Your task to perform on an android device: Open eBay Image 0: 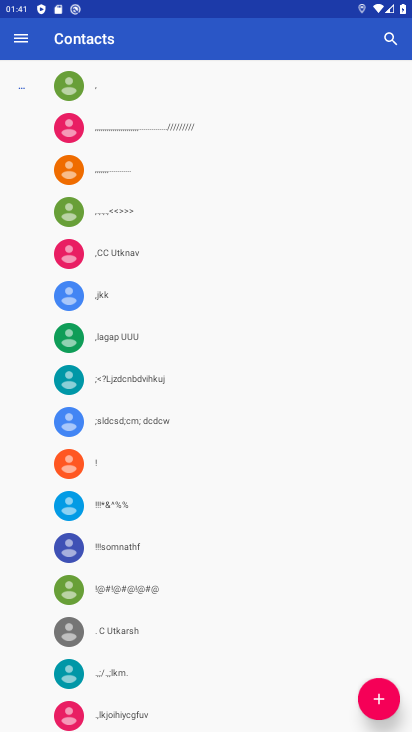
Step 0: press home button
Your task to perform on an android device: Open eBay Image 1: 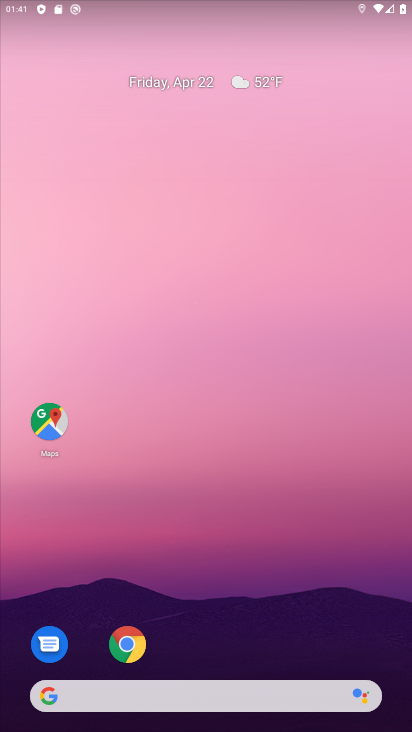
Step 1: click (128, 634)
Your task to perform on an android device: Open eBay Image 2: 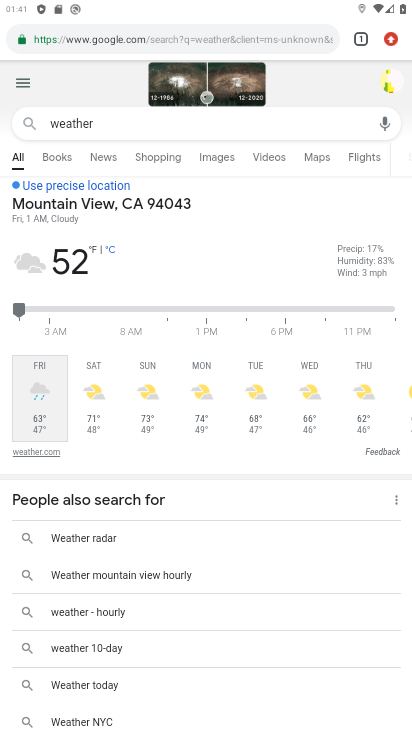
Step 2: click (159, 133)
Your task to perform on an android device: Open eBay Image 3: 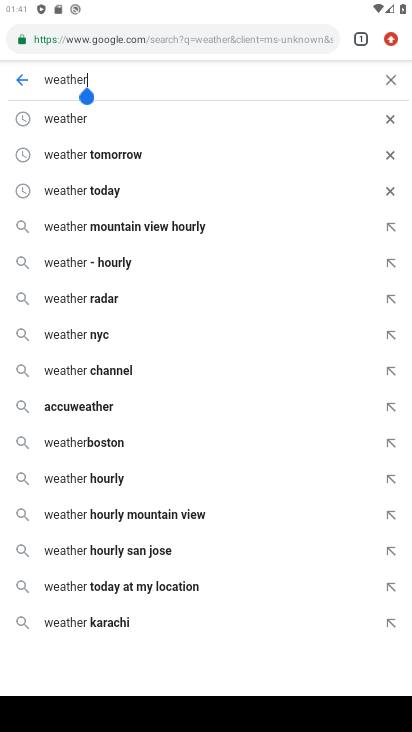
Step 3: click (396, 80)
Your task to perform on an android device: Open eBay Image 4: 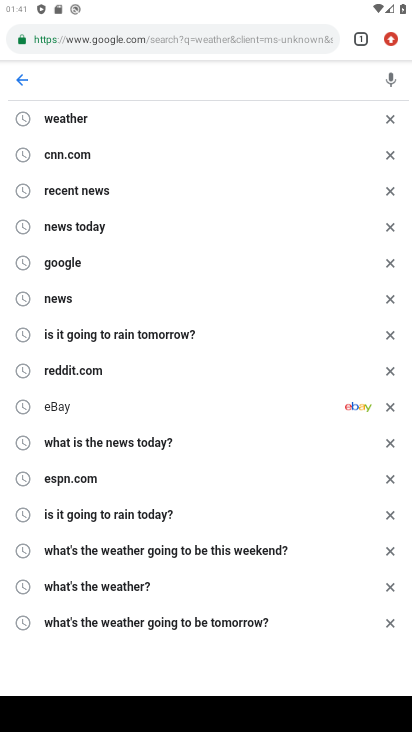
Step 4: click (234, 398)
Your task to perform on an android device: Open eBay Image 5: 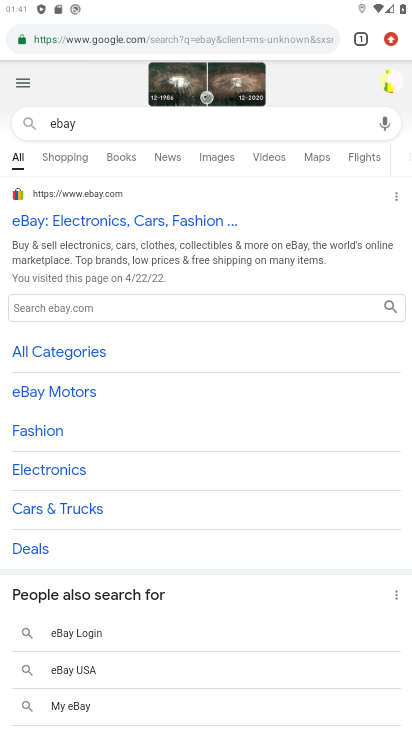
Step 5: click (146, 229)
Your task to perform on an android device: Open eBay Image 6: 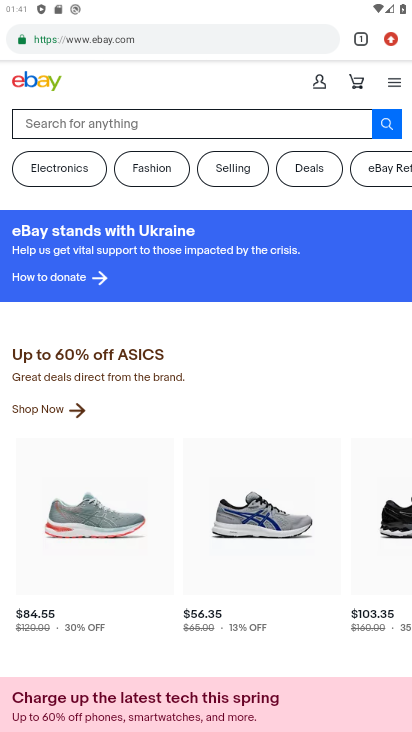
Step 6: task complete